Your task to perform on an android device: Open notification settings Image 0: 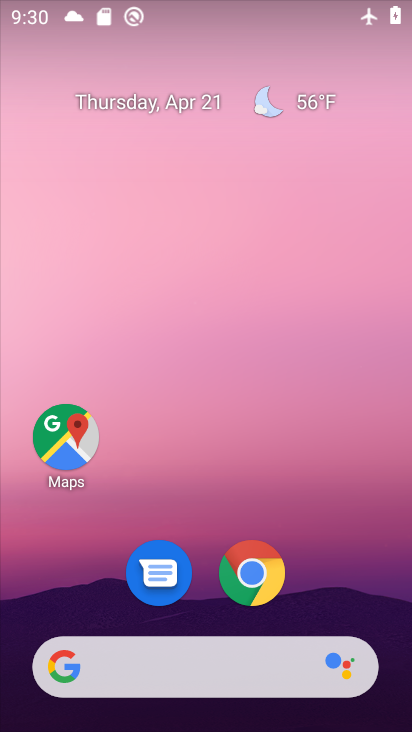
Step 0: drag from (363, 530) to (344, 121)
Your task to perform on an android device: Open notification settings Image 1: 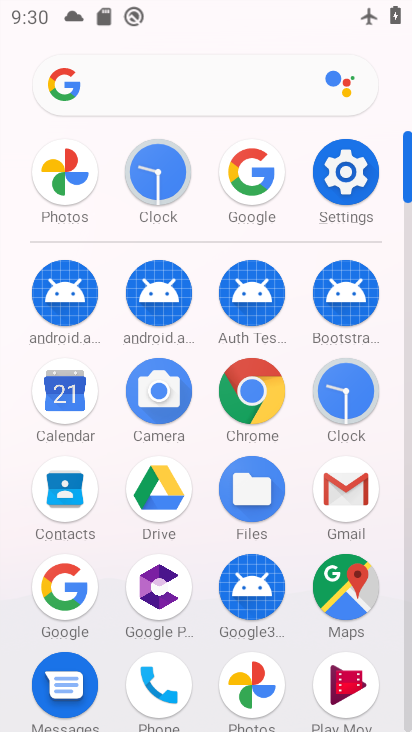
Step 1: click (349, 184)
Your task to perform on an android device: Open notification settings Image 2: 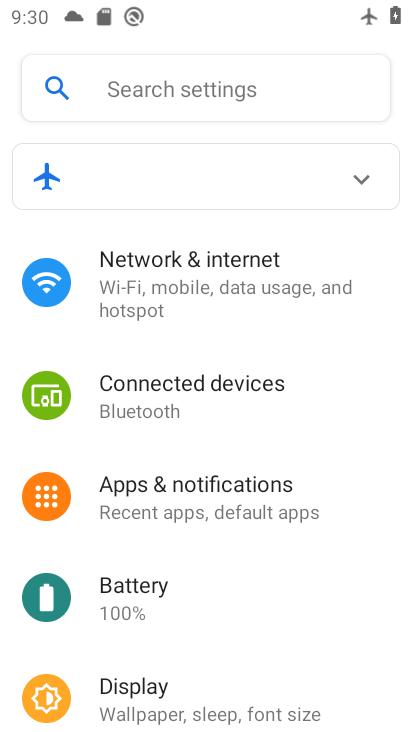
Step 2: click (169, 490)
Your task to perform on an android device: Open notification settings Image 3: 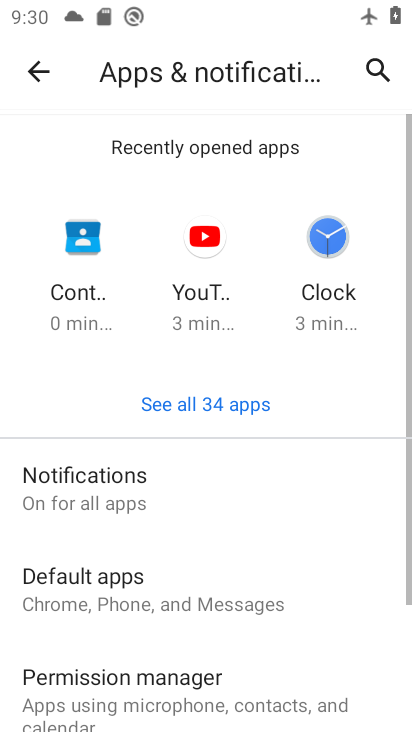
Step 3: click (169, 490)
Your task to perform on an android device: Open notification settings Image 4: 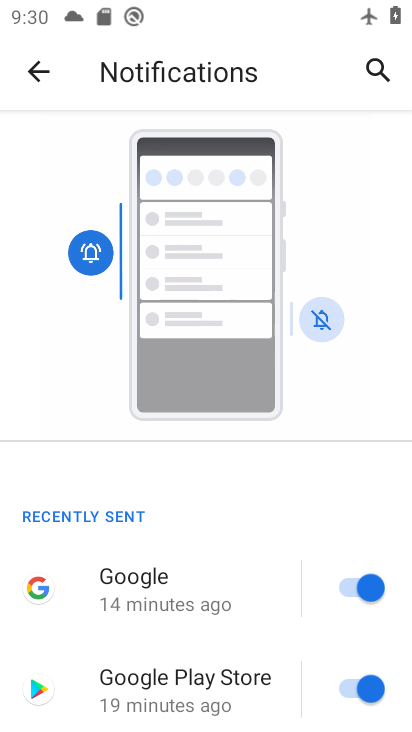
Step 4: task complete